Your task to perform on an android device: toggle pop-ups in chrome Image 0: 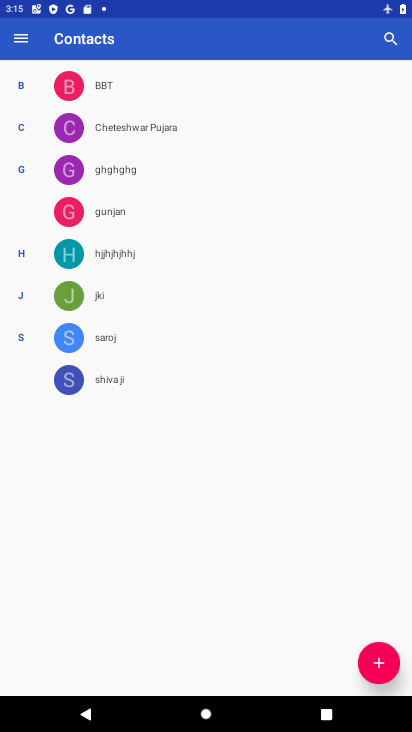
Step 0: press home button
Your task to perform on an android device: toggle pop-ups in chrome Image 1: 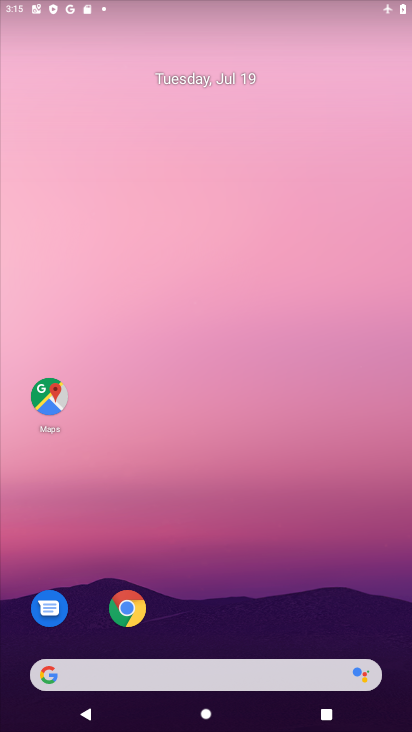
Step 1: drag from (273, 538) to (258, 140)
Your task to perform on an android device: toggle pop-ups in chrome Image 2: 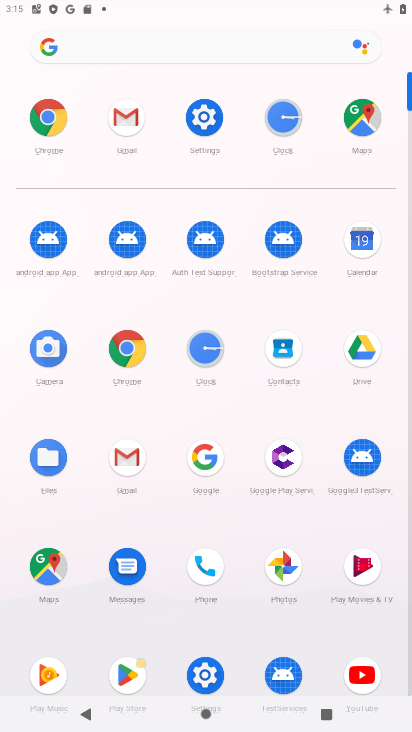
Step 2: click (127, 355)
Your task to perform on an android device: toggle pop-ups in chrome Image 3: 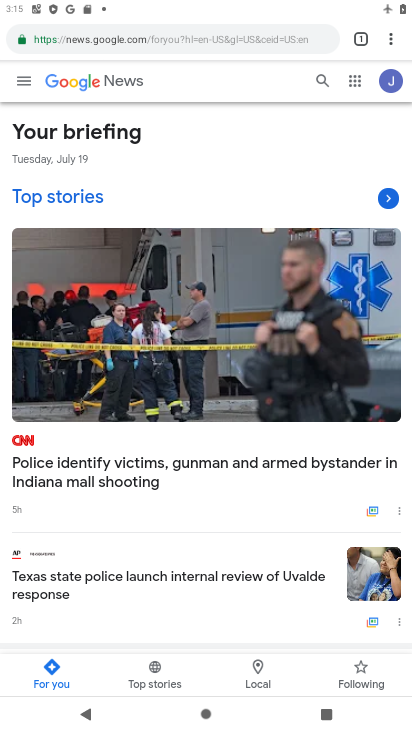
Step 3: drag from (395, 41) to (257, 436)
Your task to perform on an android device: toggle pop-ups in chrome Image 4: 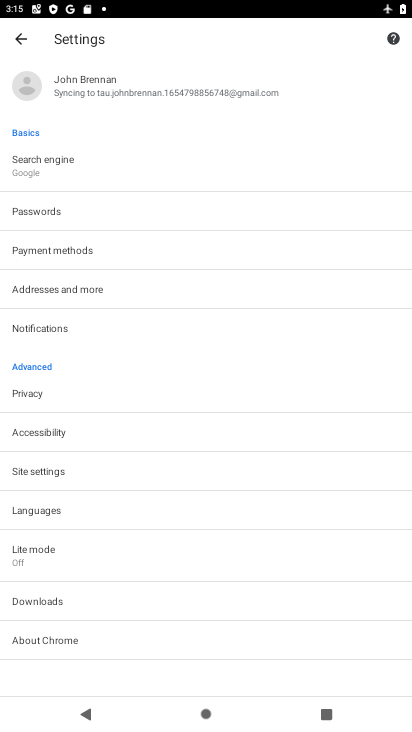
Step 4: click (64, 471)
Your task to perform on an android device: toggle pop-ups in chrome Image 5: 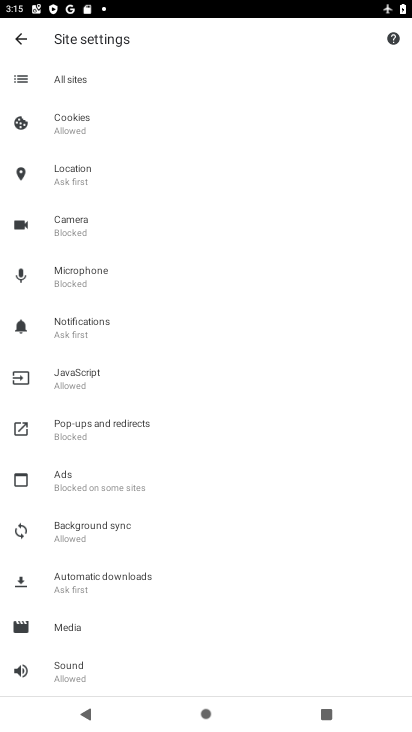
Step 5: click (90, 432)
Your task to perform on an android device: toggle pop-ups in chrome Image 6: 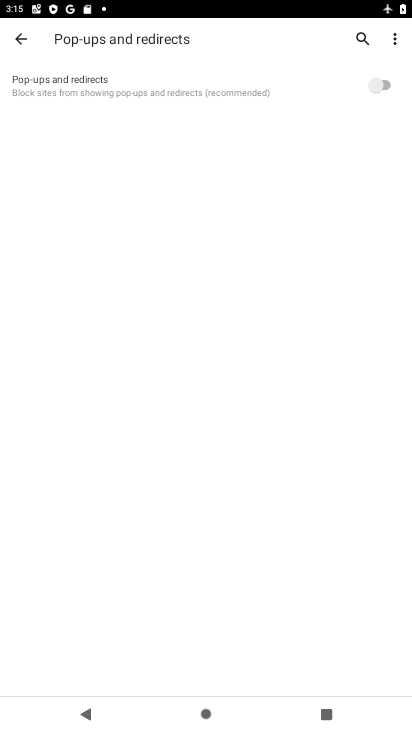
Step 6: click (384, 84)
Your task to perform on an android device: toggle pop-ups in chrome Image 7: 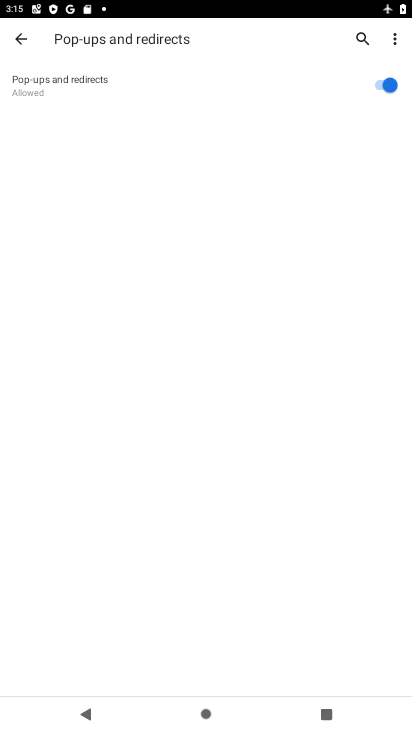
Step 7: task complete